Your task to perform on an android device: Play the latest video from the Huffington Post Image 0: 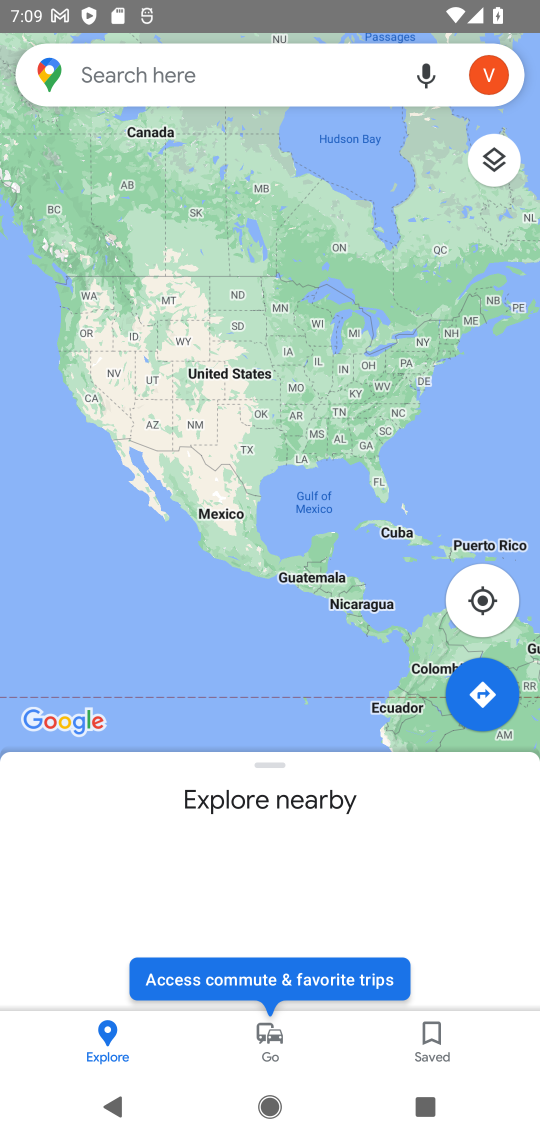
Step 0: press home button
Your task to perform on an android device: Play the latest video from the Huffington Post Image 1: 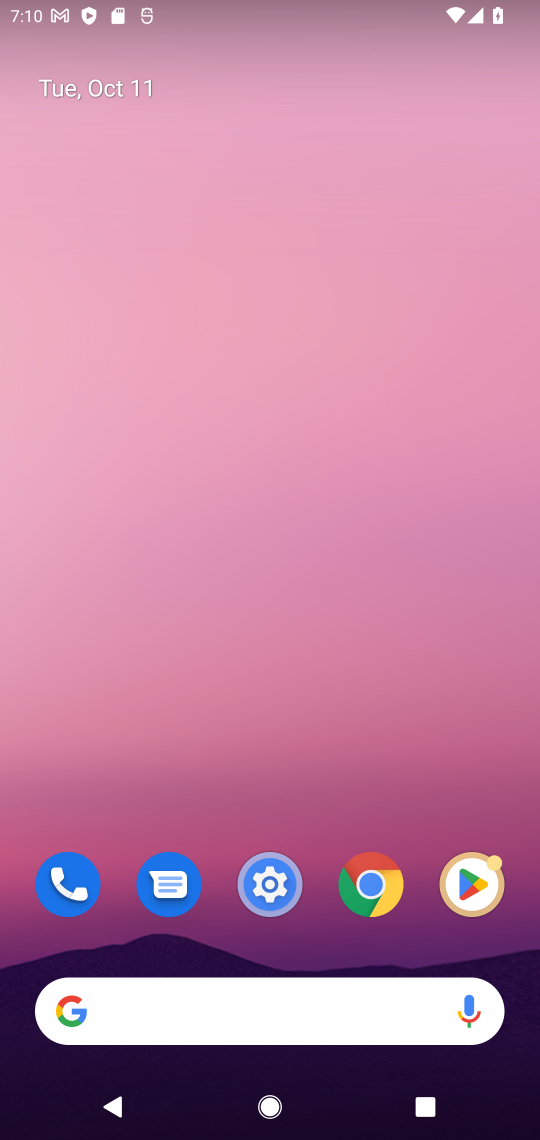
Step 1: drag from (301, 836) to (344, 224)
Your task to perform on an android device: Play the latest video from the Huffington Post Image 2: 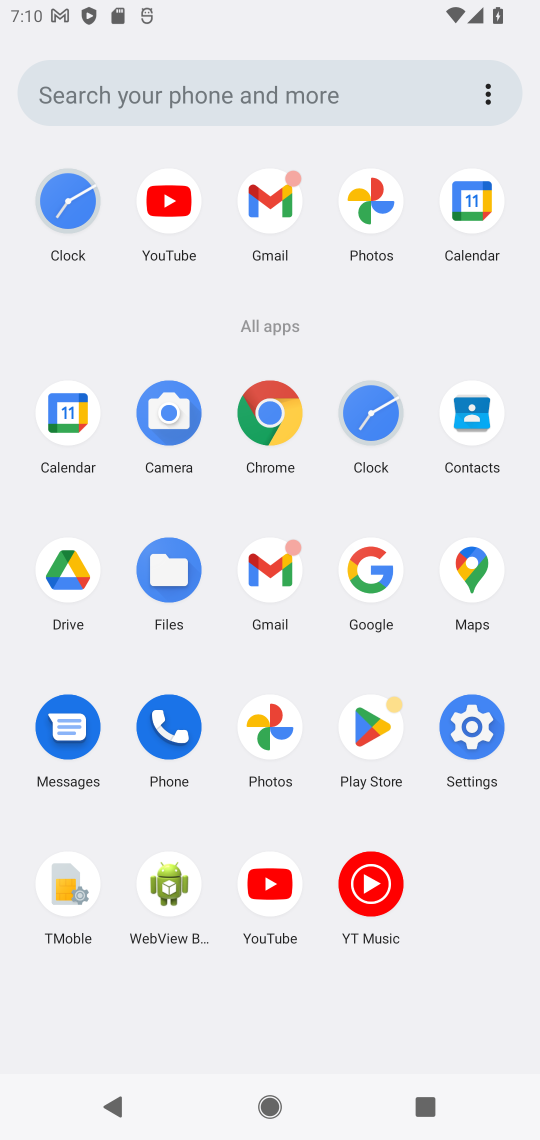
Step 2: click (154, 201)
Your task to perform on an android device: Play the latest video from the Huffington Post Image 3: 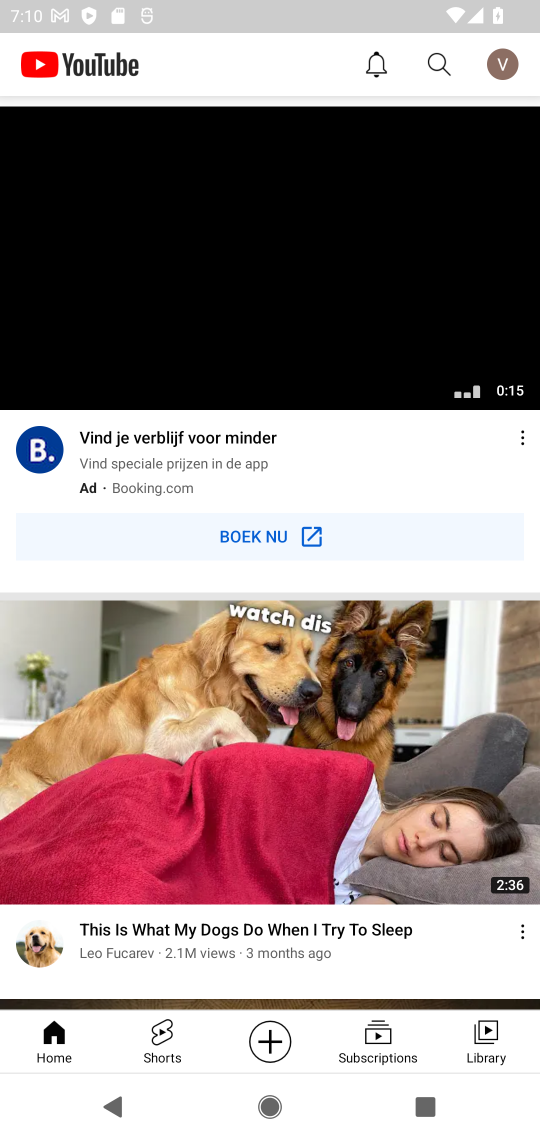
Step 3: click (437, 65)
Your task to perform on an android device: Play the latest video from the Huffington Post Image 4: 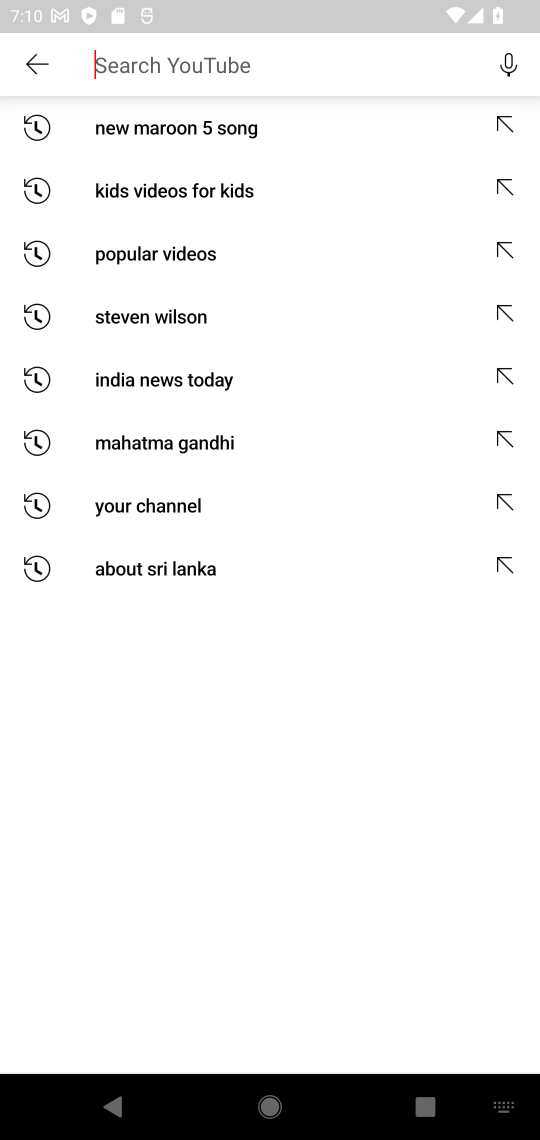
Step 4: type "Huffington Post"
Your task to perform on an android device: Play the latest video from the Huffington Post Image 5: 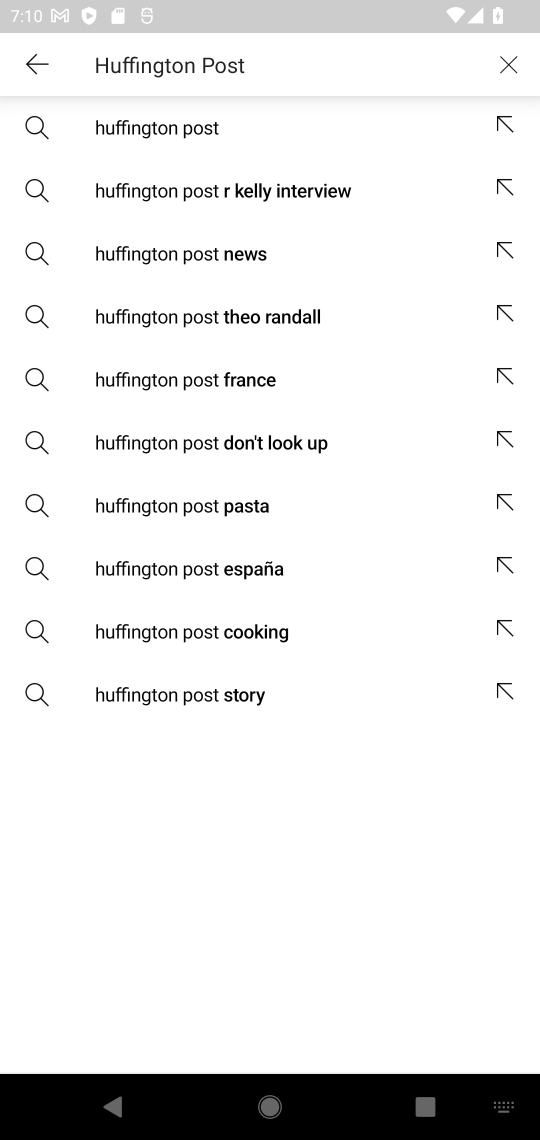
Step 5: click (193, 137)
Your task to perform on an android device: Play the latest video from the Huffington Post Image 6: 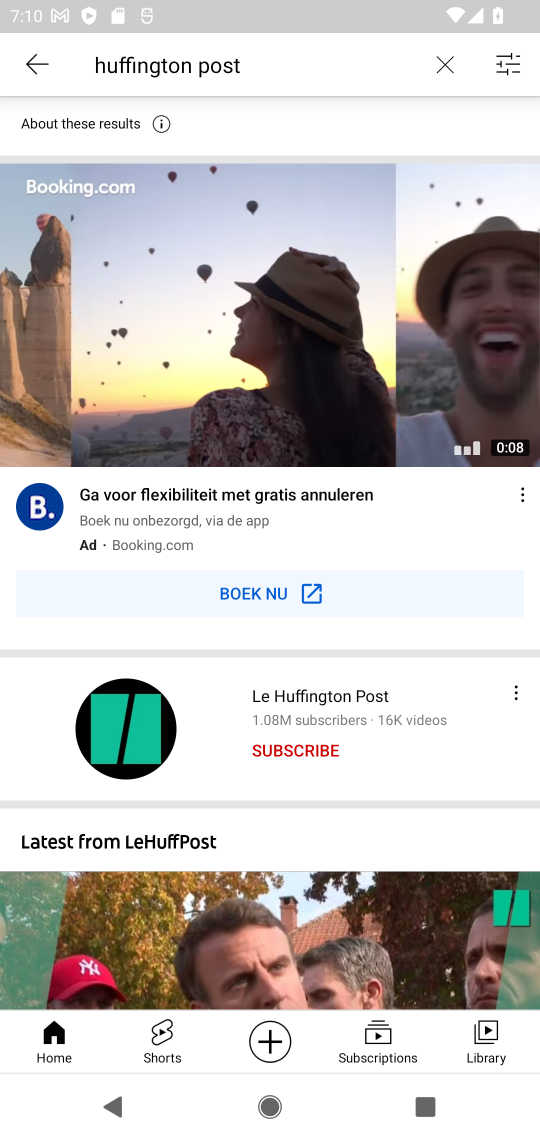
Step 6: drag from (443, 691) to (424, 252)
Your task to perform on an android device: Play the latest video from the Huffington Post Image 7: 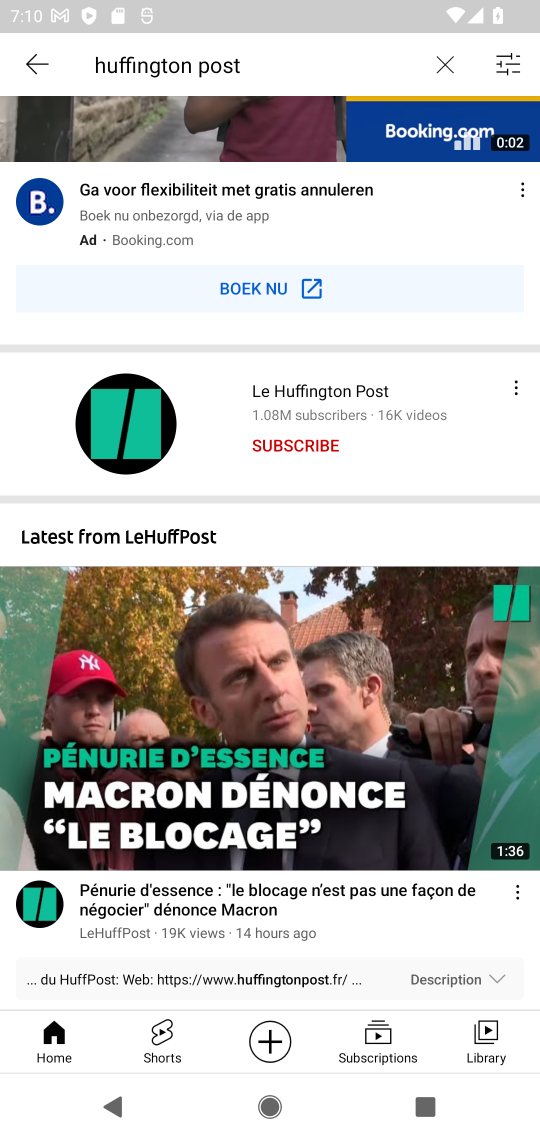
Step 7: click (393, 952)
Your task to perform on an android device: Play the latest video from the Huffington Post Image 8: 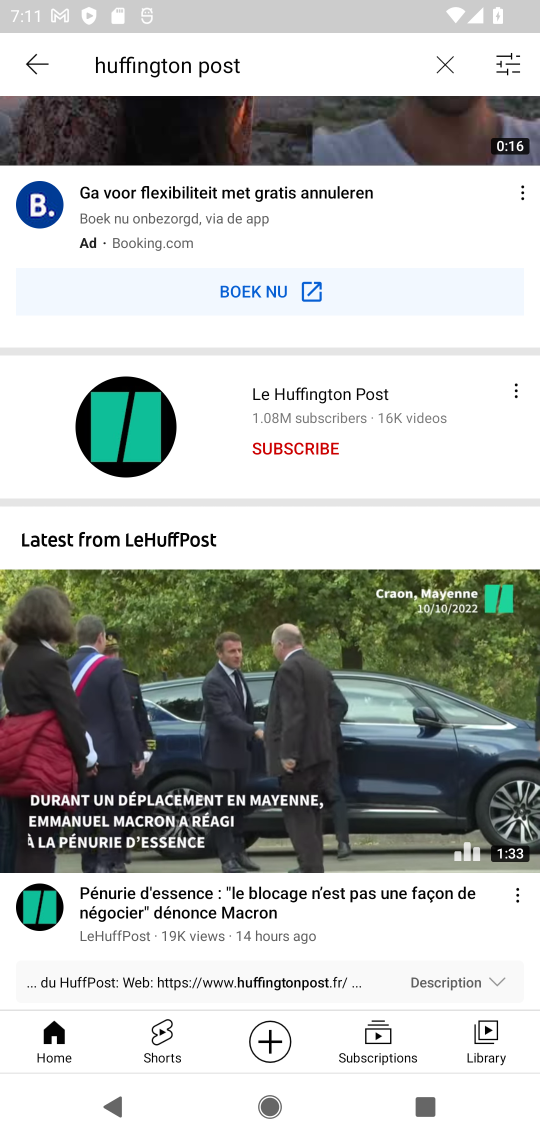
Step 8: click (331, 382)
Your task to perform on an android device: Play the latest video from the Huffington Post Image 9: 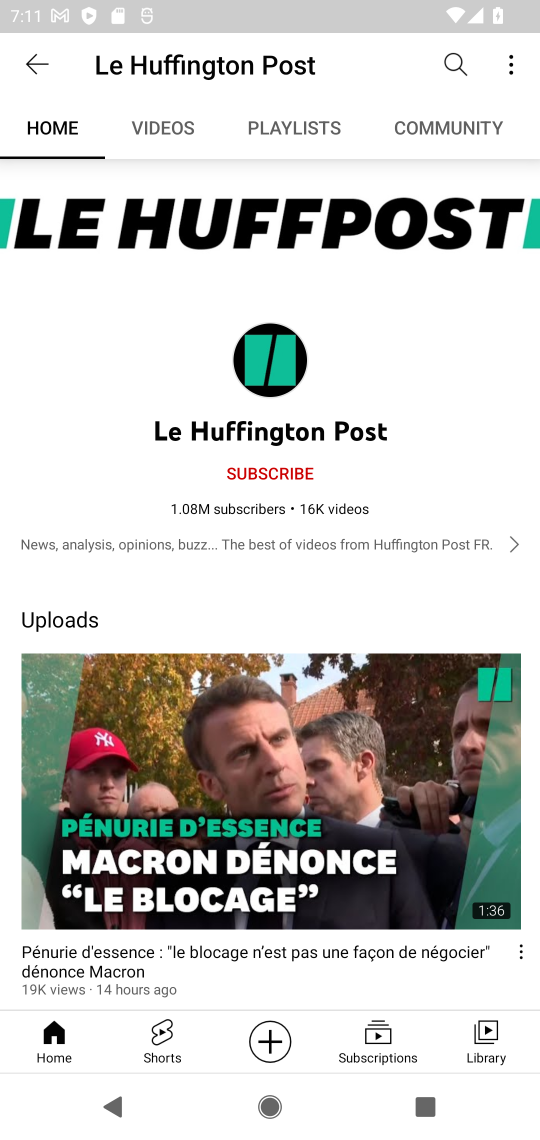
Step 9: click (169, 122)
Your task to perform on an android device: Play the latest video from the Huffington Post Image 10: 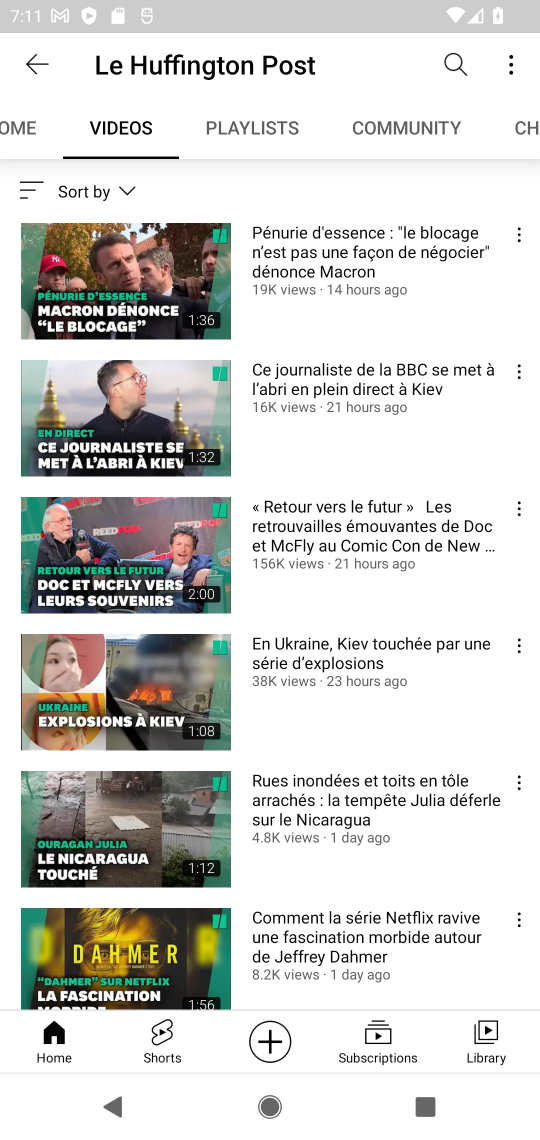
Step 10: click (321, 250)
Your task to perform on an android device: Play the latest video from the Huffington Post Image 11: 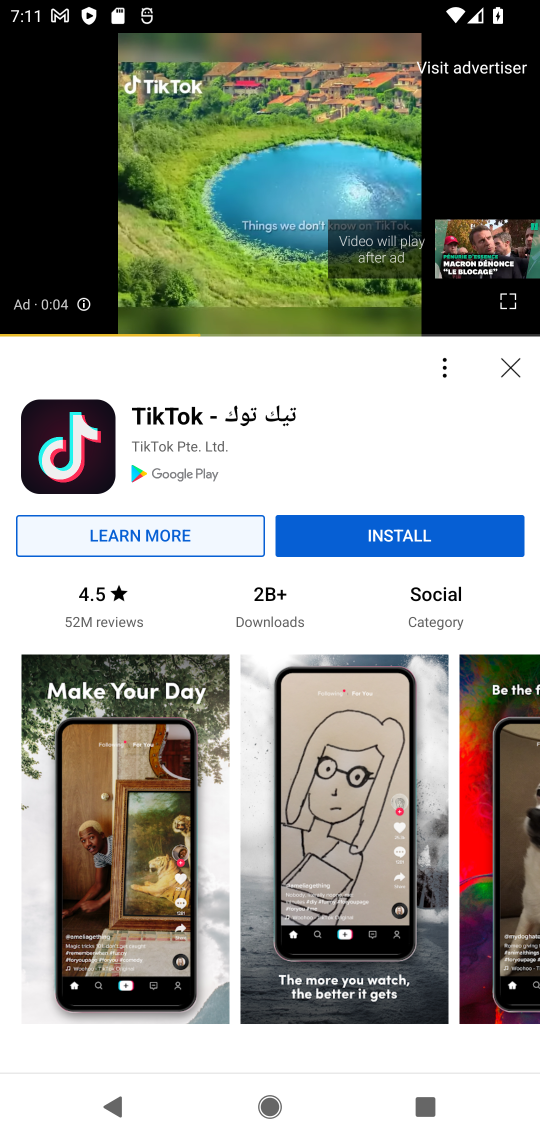
Step 11: task complete